Your task to perform on an android device: open app "Fetch Rewards" Image 0: 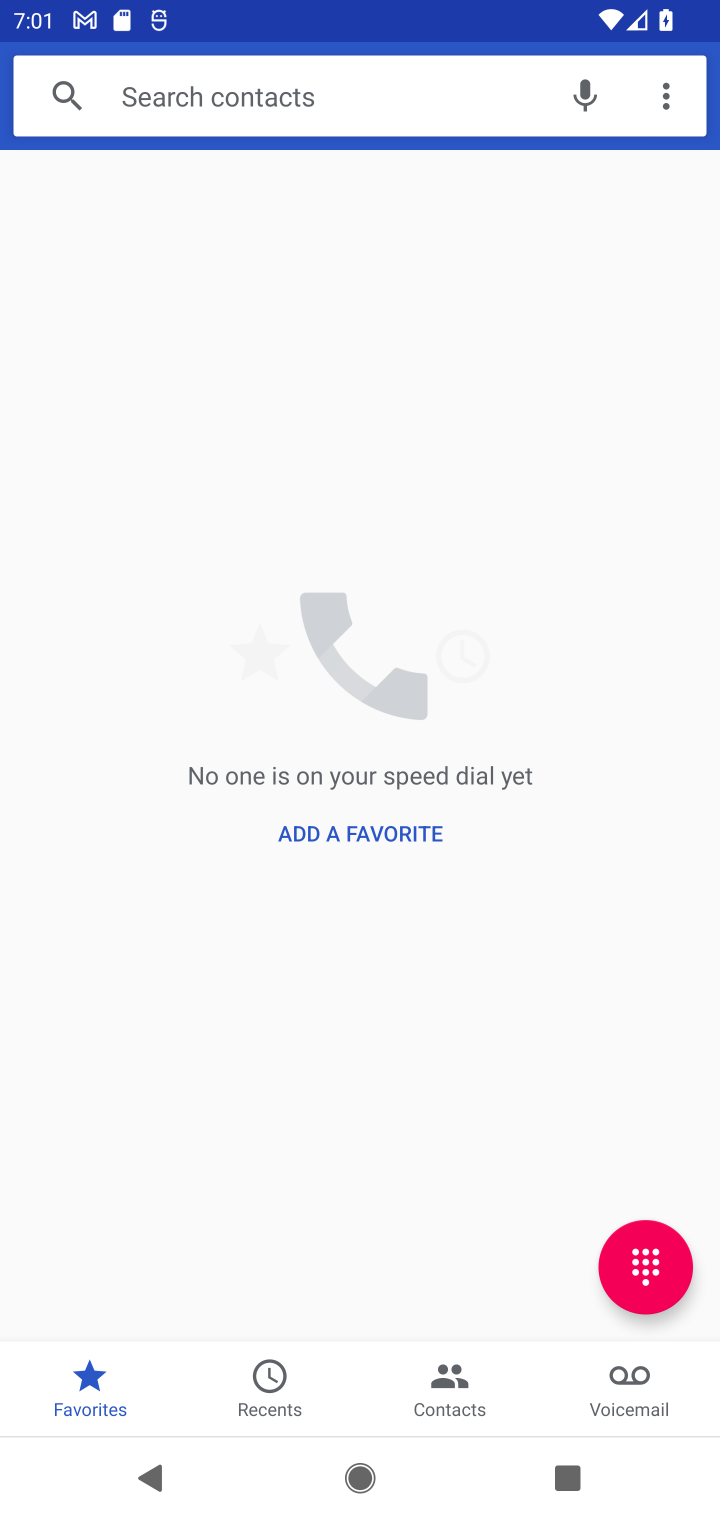
Step 0: press home button
Your task to perform on an android device: open app "Fetch Rewards" Image 1: 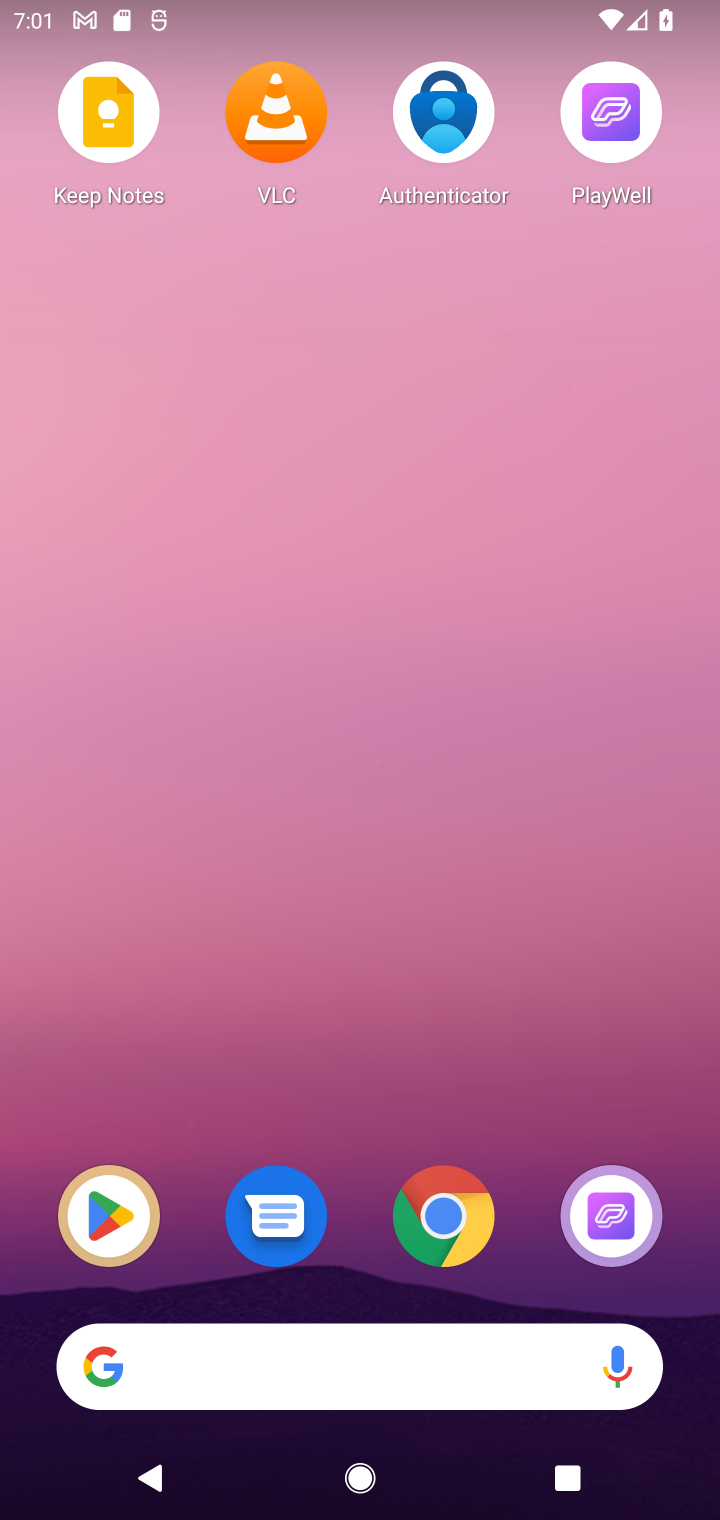
Step 1: click (107, 1211)
Your task to perform on an android device: open app "Fetch Rewards" Image 2: 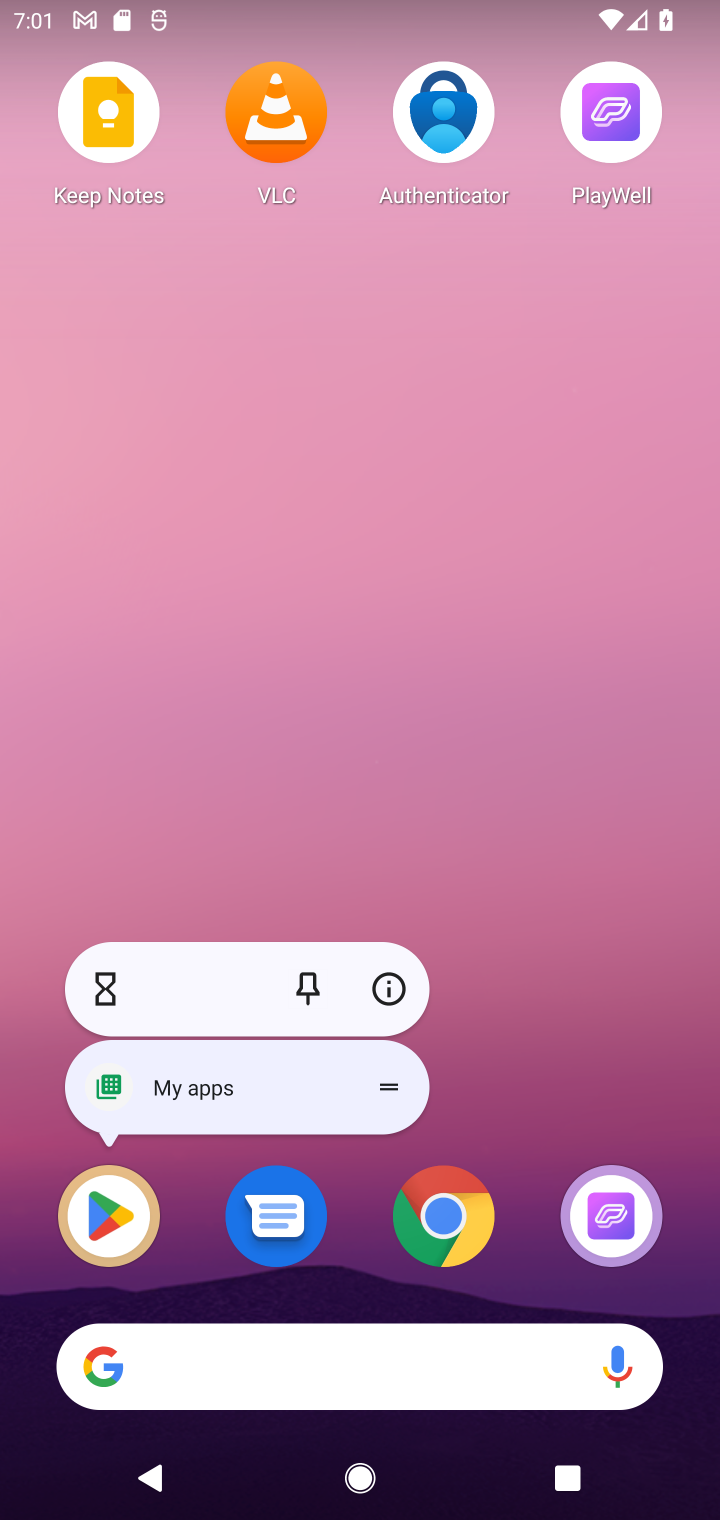
Step 2: click (107, 1214)
Your task to perform on an android device: open app "Fetch Rewards" Image 3: 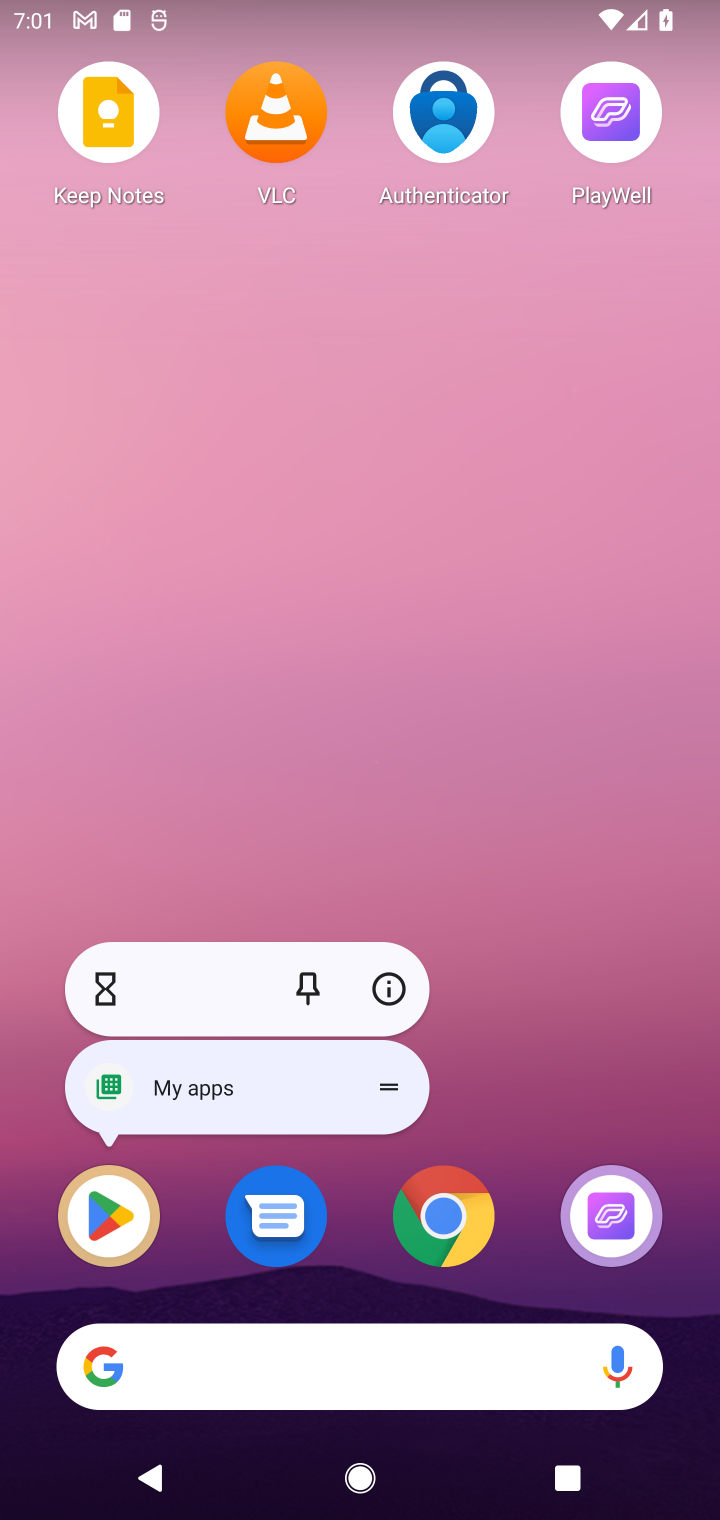
Step 3: click (107, 1214)
Your task to perform on an android device: open app "Fetch Rewards" Image 4: 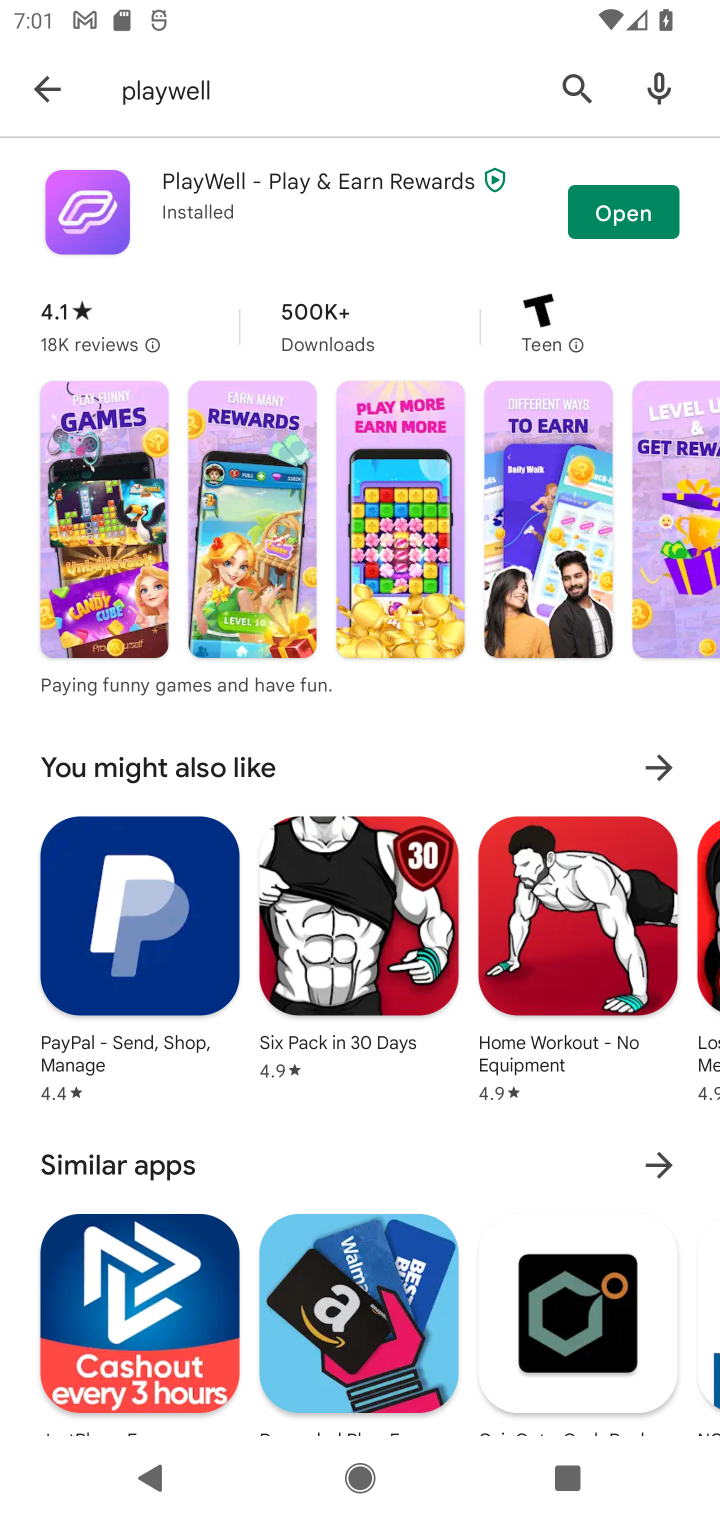
Step 4: click (577, 82)
Your task to perform on an android device: open app "Fetch Rewards" Image 5: 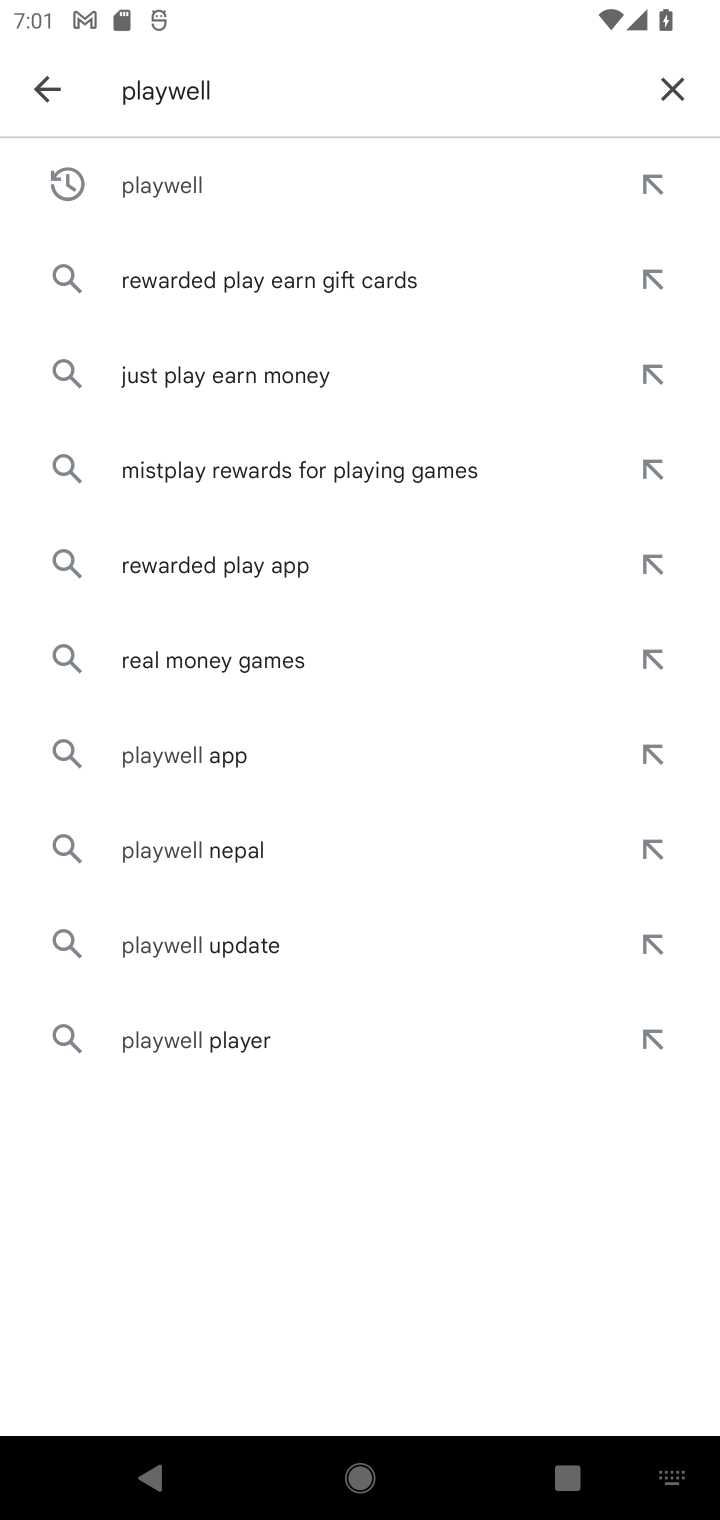
Step 5: type "Fetch Rewards"
Your task to perform on an android device: open app "Fetch Rewards" Image 6: 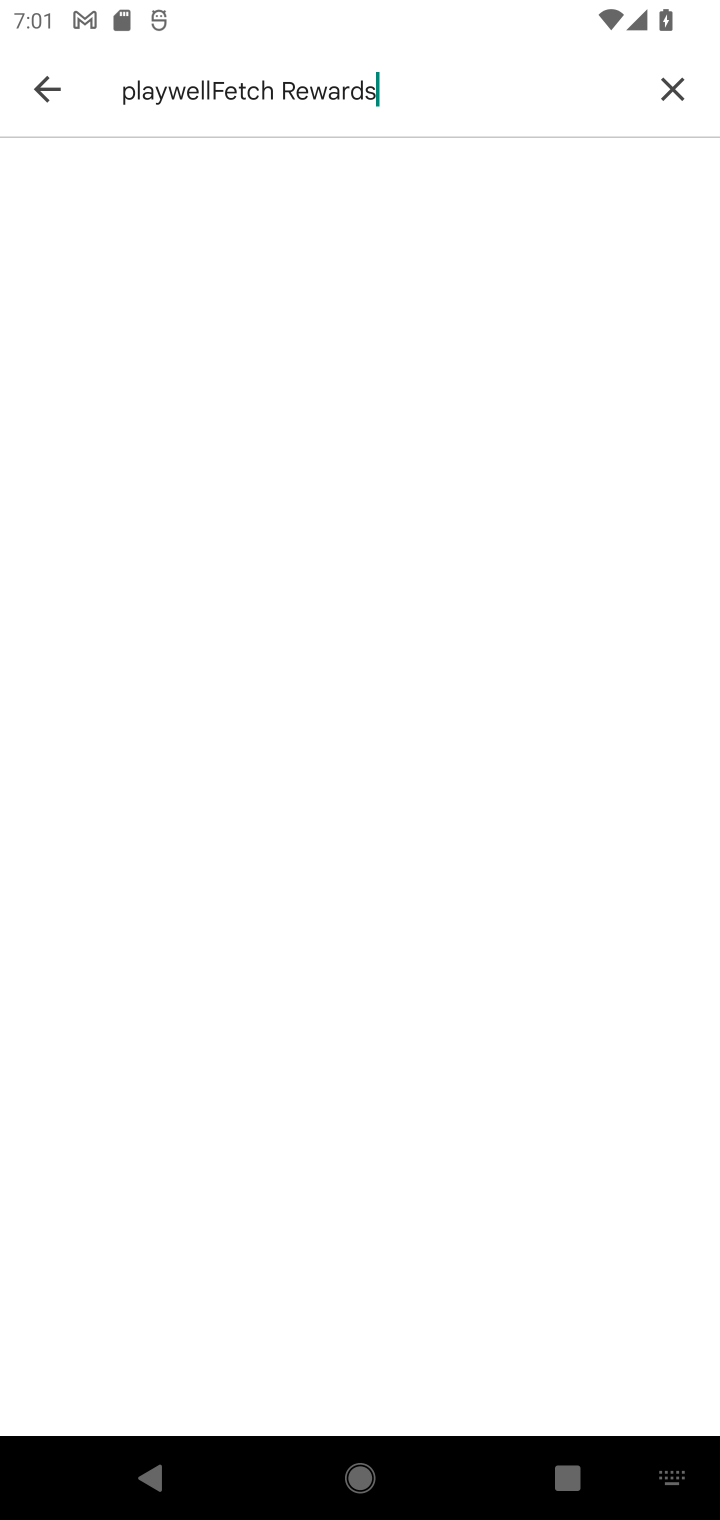
Step 6: click (674, 76)
Your task to perform on an android device: open app "Fetch Rewards" Image 7: 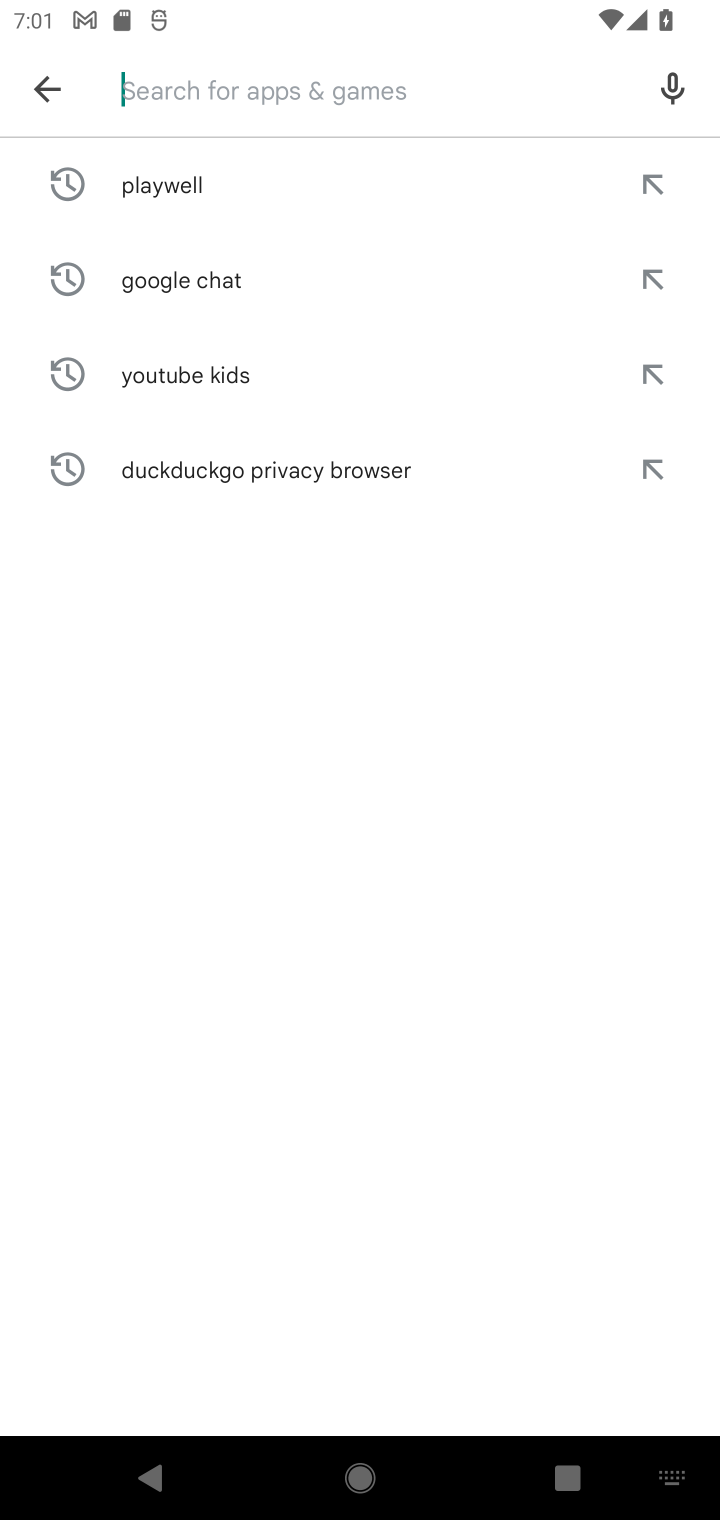
Step 7: type "Fetch Rewards"
Your task to perform on an android device: open app "Fetch Rewards" Image 8: 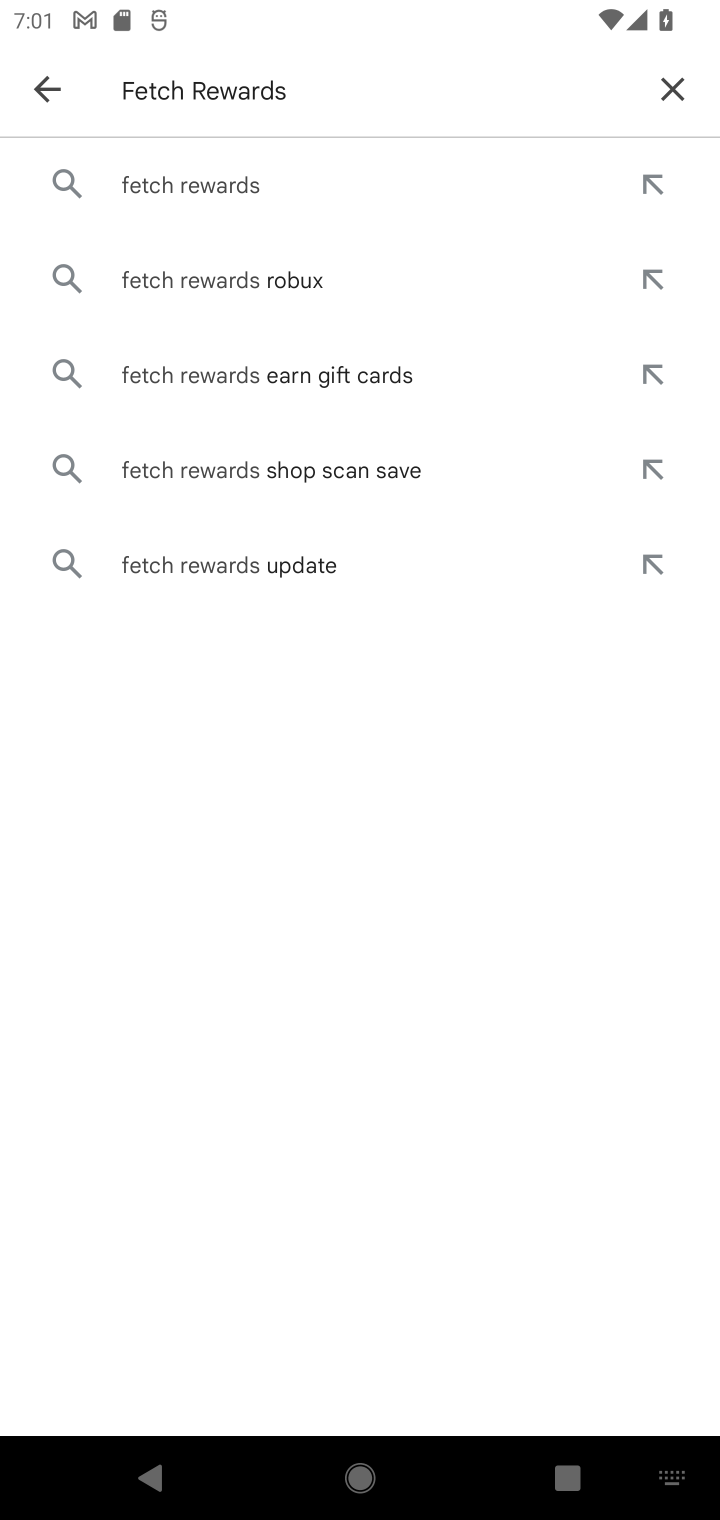
Step 8: click (227, 179)
Your task to perform on an android device: open app "Fetch Rewards" Image 9: 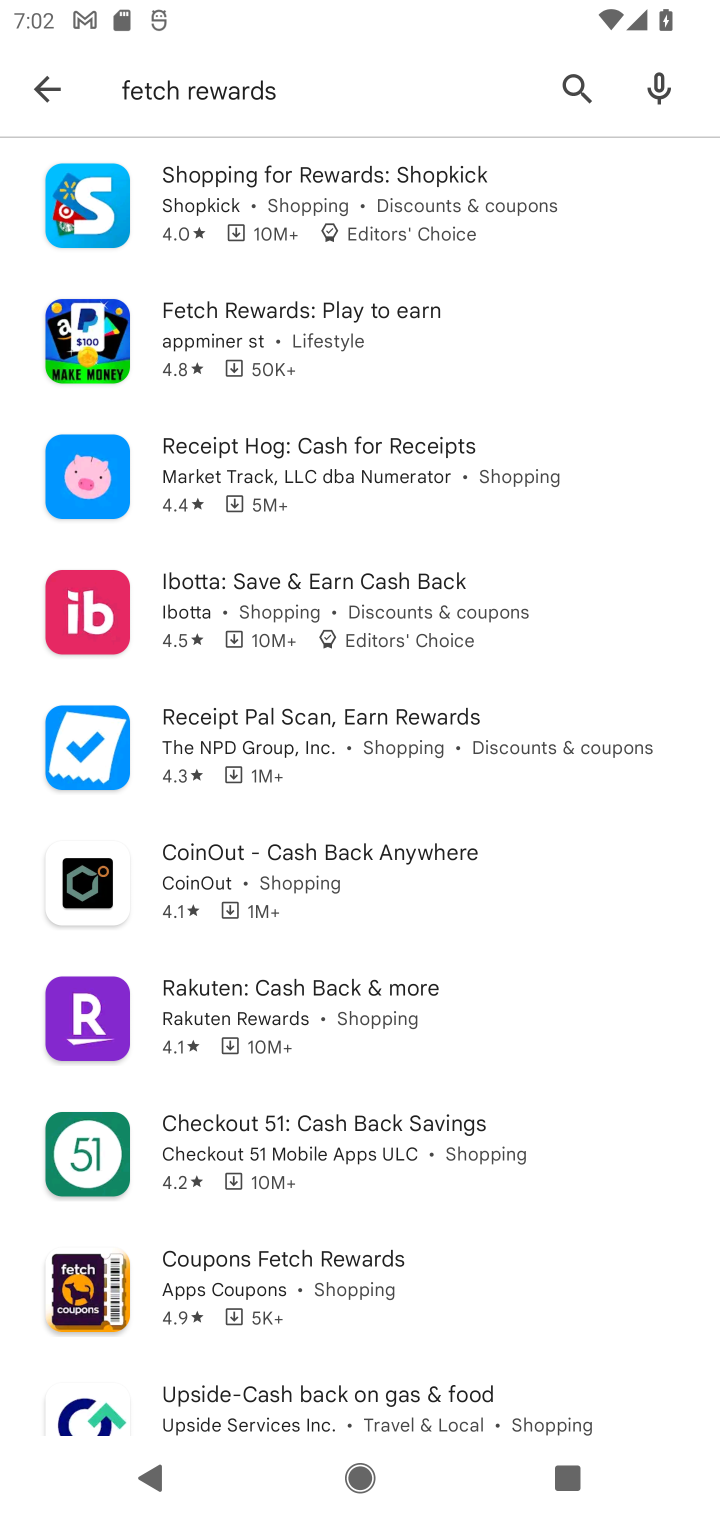
Step 9: click (307, 348)
Your task to perform on an android device: open app "Fetch Rewards" Image 10: 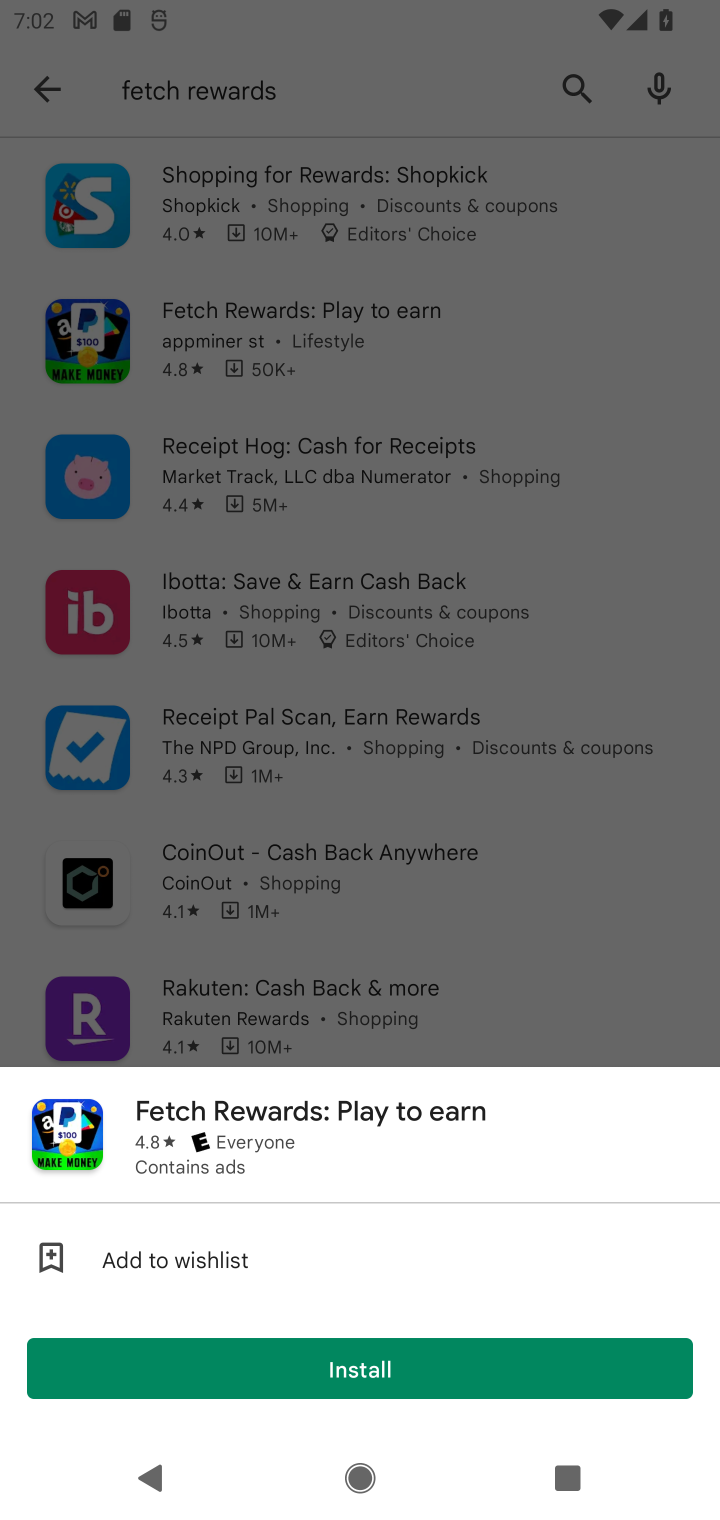
Step 10: task complete